Your task to perform on an android device: Show me popular games on the Play Store Image 0: 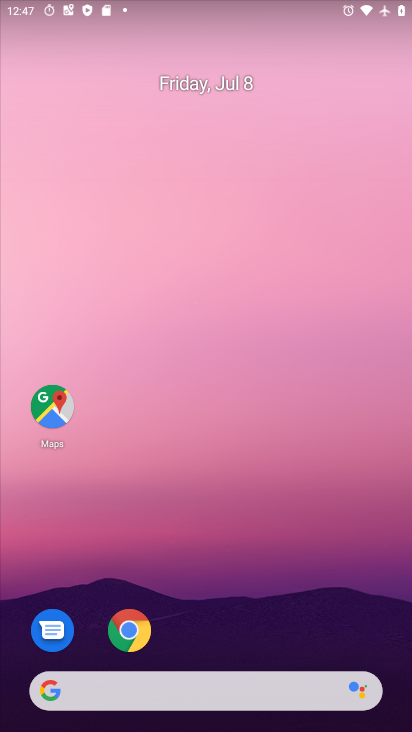
Step 0: drag from (186, 659) to (179, 227)
Your task to perform on an android device: Show me popular games on the Play Store Image 1: 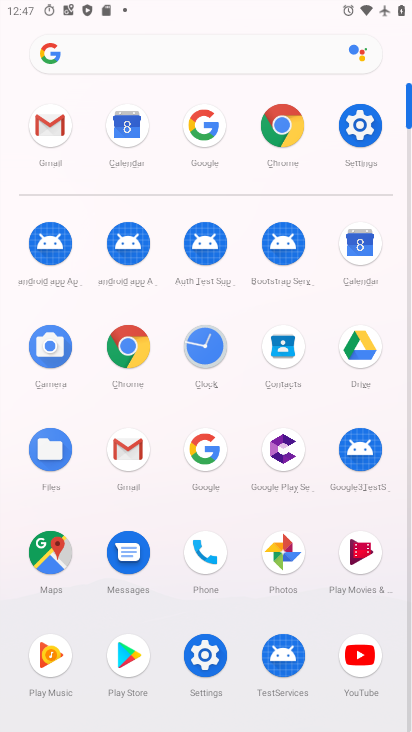
Step 1: click (145, 658)
Your task to perform on an android device: Show me popular games on the Play Store Image 2: 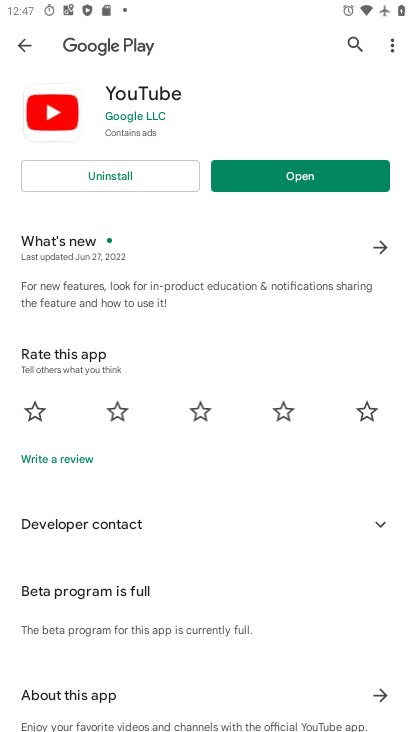
Step 2: click (31, 41)
Your task to perform on an android device: Show me popular games on the Play Store Image 3: 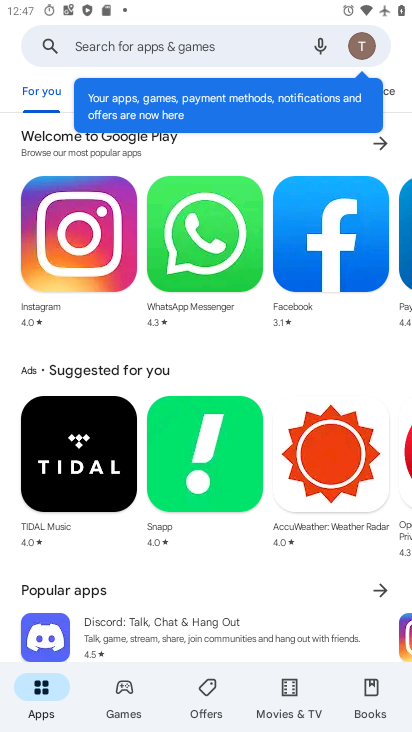
Step 3: click (130, 681)
Your task to perform on an android device: Show me popular games on the Play Store Image 4: 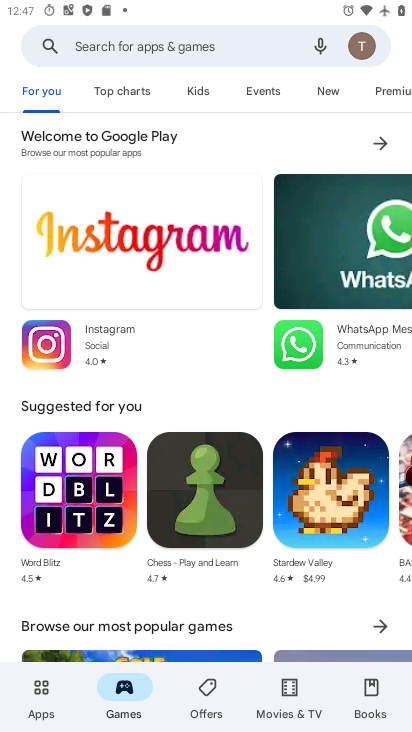
Step 4: drag from (336, 96) to (160, 100)
Your task to perform on an android device: Show me popular games on the Play Store Image 5: 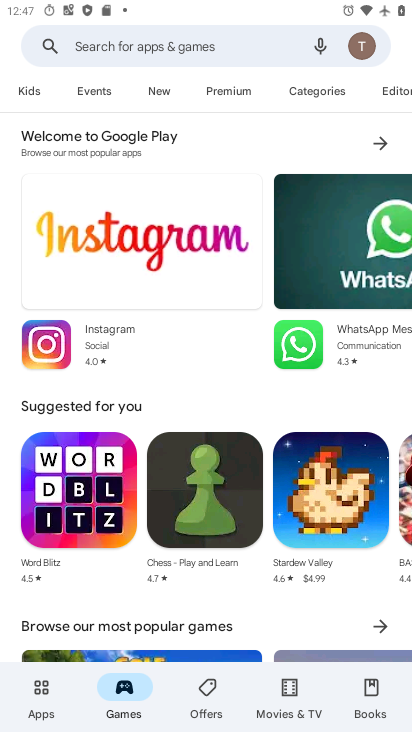
Step 5: drag from (130, 100) to (66, 100)
Your task to perform on an android device: Show me popular games on the Play Store Image 6: 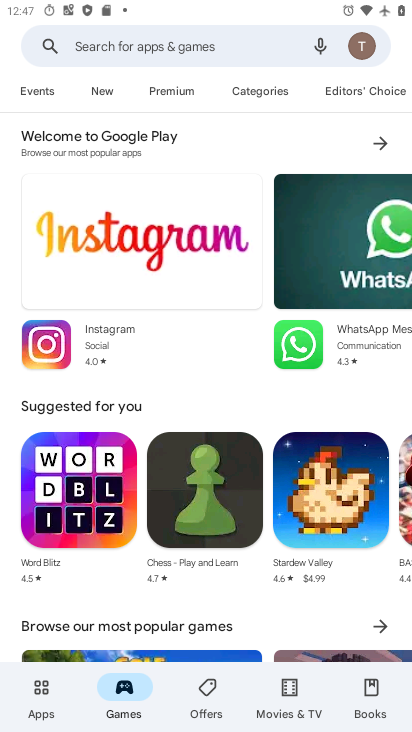
Step 6: click (241, 91)
Your task to perform on an android device: Show me popular games on the Play Store Image 7: 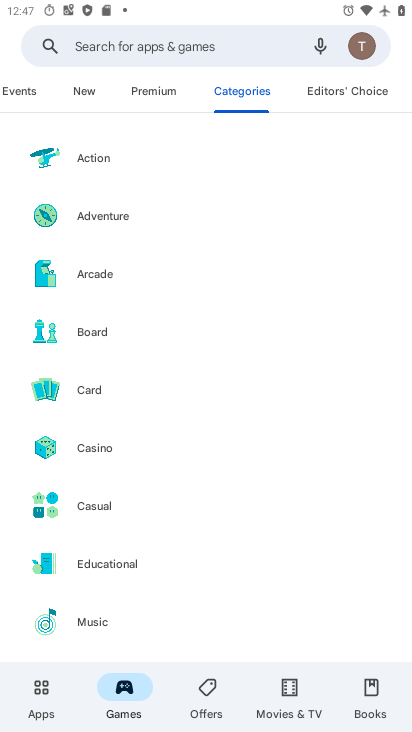
Step 7: drag from (146, 581) to (163, 162)
Your task to perform on an android device: Show me popular games on the Play Store Image 8: 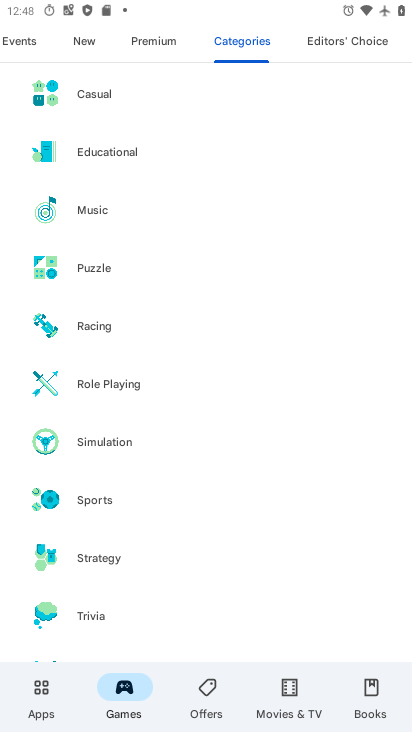
Step 8: drag from (136, 577) to (152, 186)
Your task to perform on an android device: Show me popular games on the Play Store Image 9: 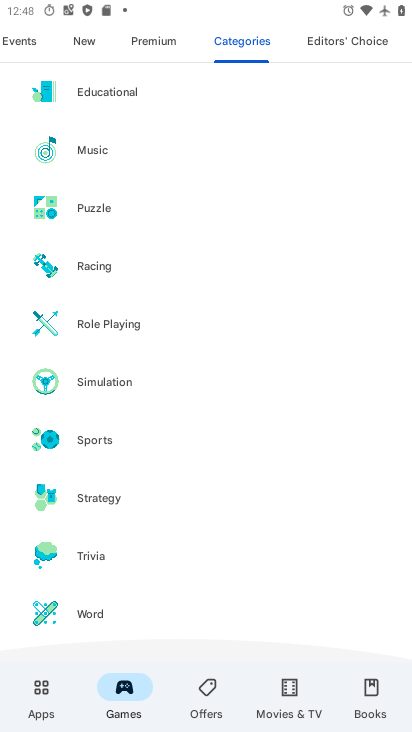
Step 9: drag from (132, 539) to (142, 176)
Your task to perform on an android device: Show me popular games on the Play Store Image 10: 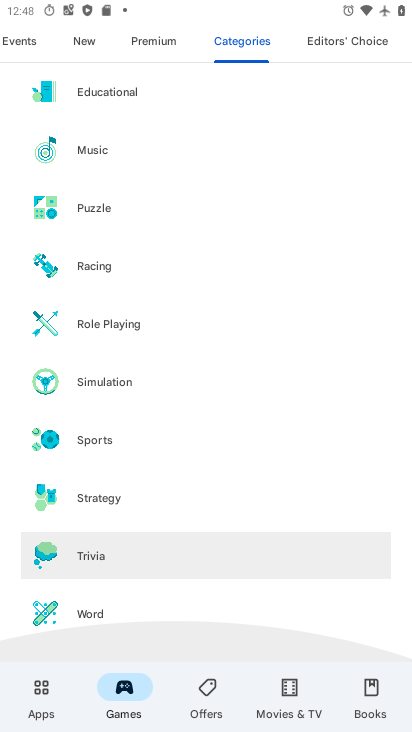
Step 10: drag from (140, 535) to (166, 152)
Your task to perform on an android device: Show me popular games on the Play Store Image 11: 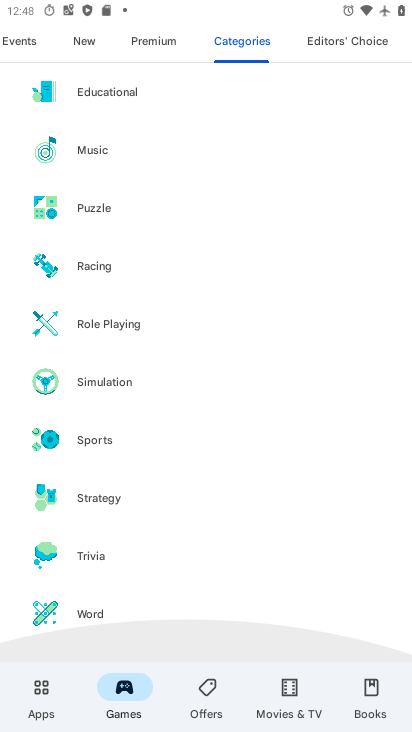
Step 11: drag from (133, 571) to (141, 169)
Your task to perform on an android device: Show me popular games on the Play Store Image 12: 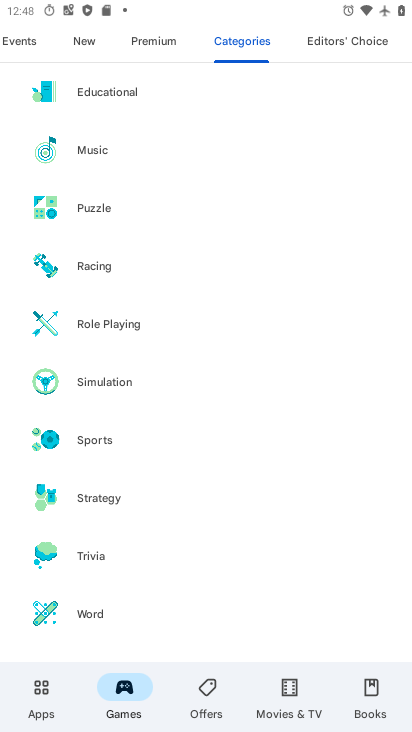
Step 12: drag from (23, 39) to (154, 24)
Your task to perform on an android device: Show me popular games on the Play Store Image 13: 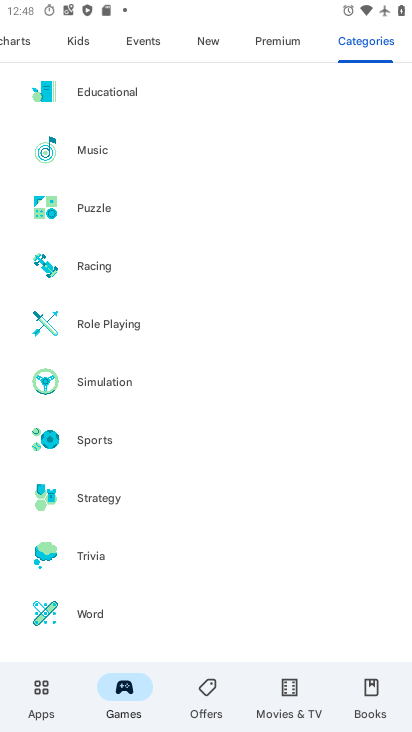
Step 13: click (28, 48)
Your task to perform on an android device: Show me popular games on the Play Store Image 14: 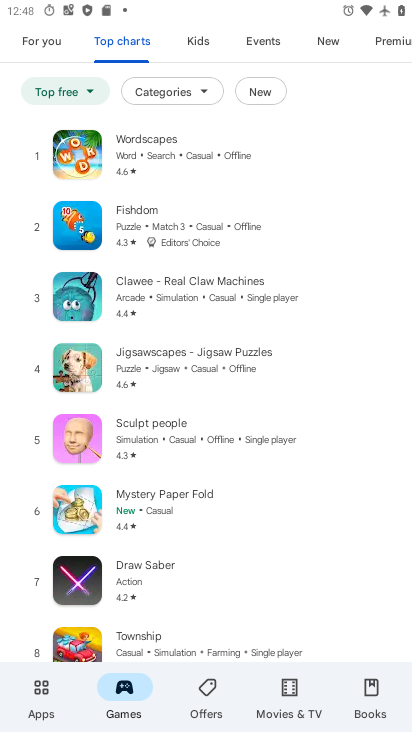
Step 14: task complete